Your task to perform on an android device: check out phone information Image 0: 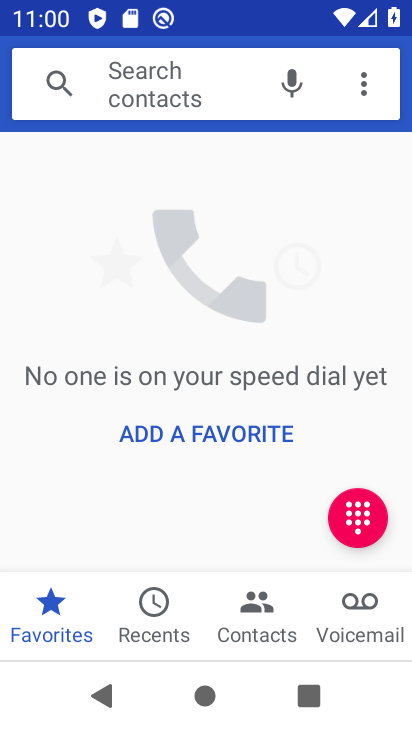
Step 0: press home button
Your task to perform on an android device: check out phone information Image 1: 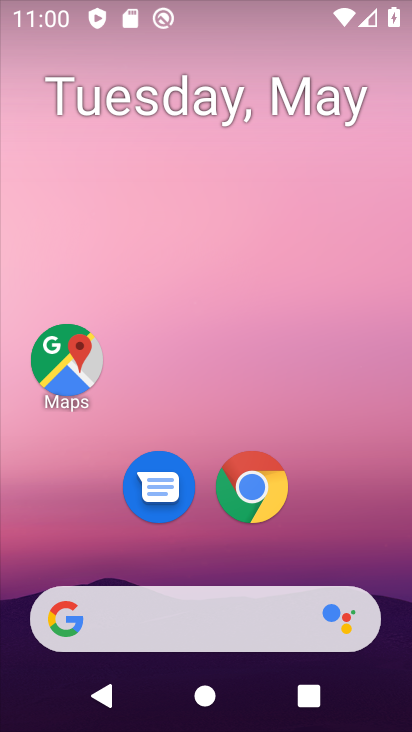
Step 1: drag from (308, 523) to (341, 154)
Your task to perform on an android device: check out phone information Image 2: 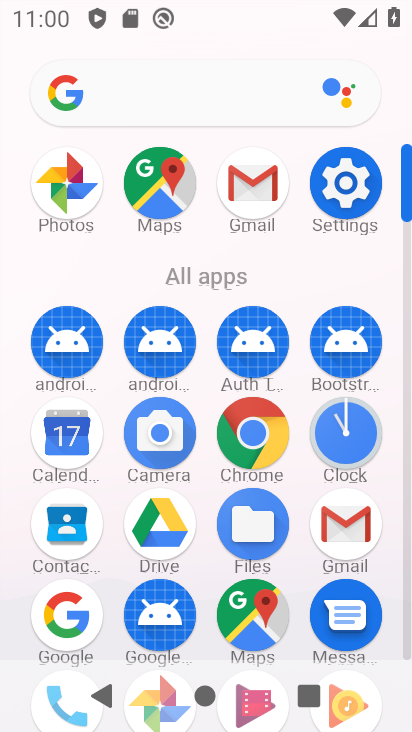
Step 2: click (333, 179)
Your task to perform on an android device: check out phone information Image 3: 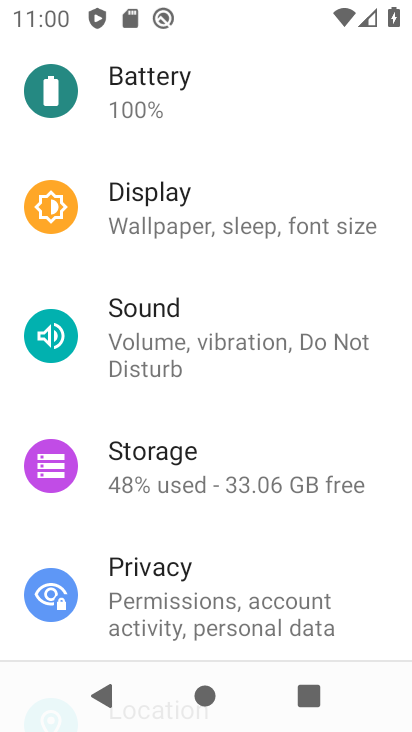
Step 3: drag from (233, 595) to (312, 102)
Your task to perform on an android device: check out phone information Image 4: 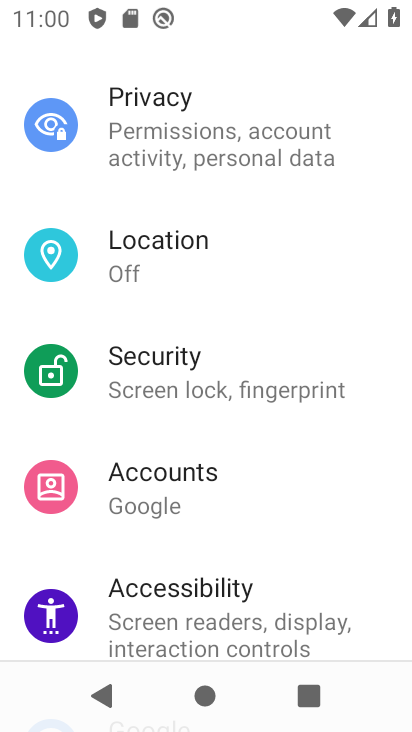
Step 4: drag from (230, 620) to (314, 232)
Your task to perform on an android device: check out phone information Image 5: 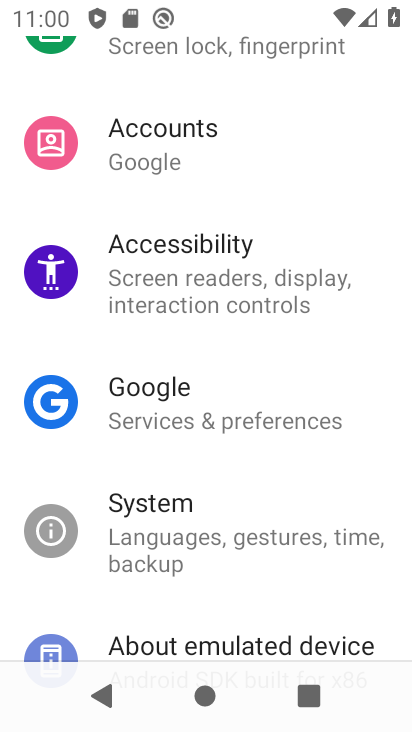
Step 5: drag from (187, 579) to (271, 227)
Your task to perform on an android device: check out phone information Image 6: 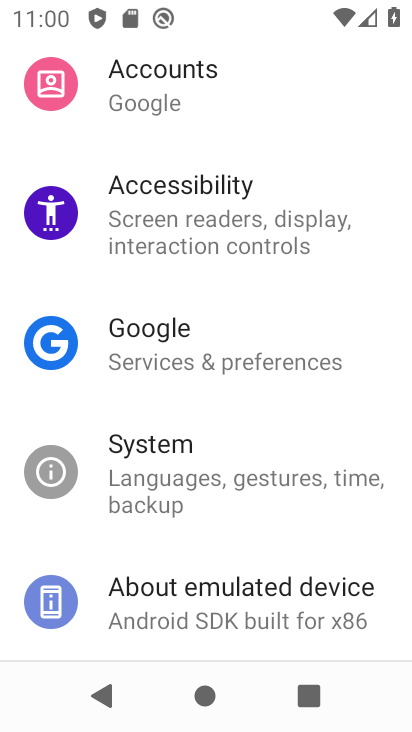
Step 6: click (193, 607)
Your task to perform on an android device: check out phone information Image 7: 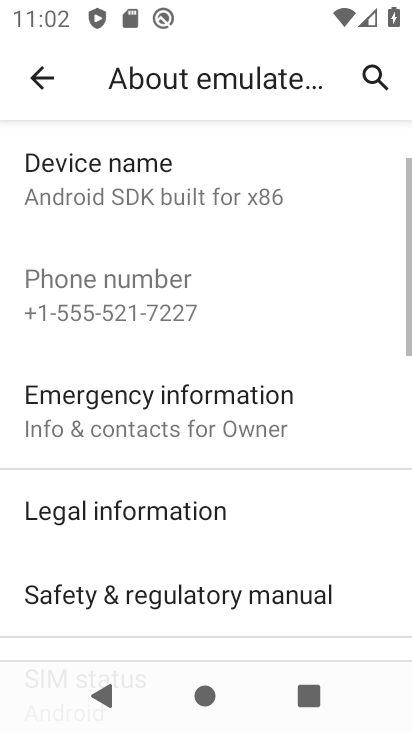
Step 7: task complete